Your task to perform on an android device: Open display settings Image 0: 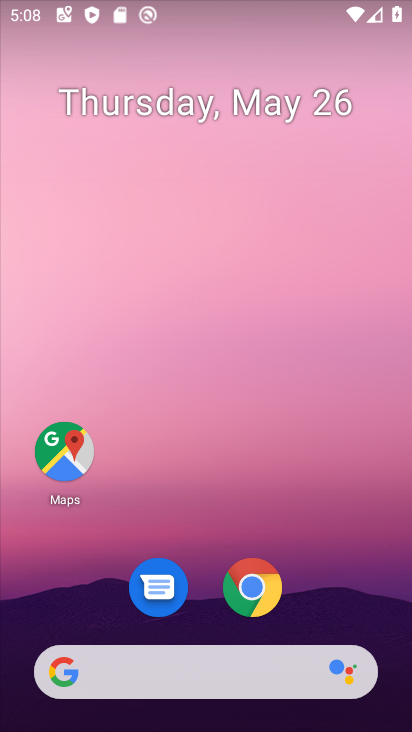
Step 0: drag from (340, 503) to (295, 108)
Your task to perform on an android device: Open display settings Image 1: 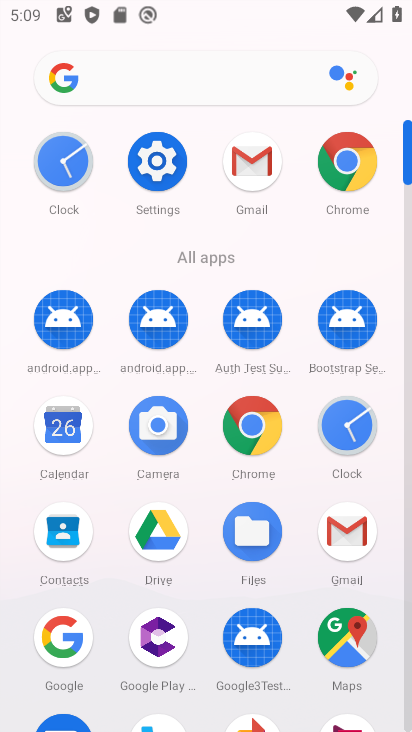
Step 1: click (155, 158)
Your task to perform on an android device: Open display settings Image 2: 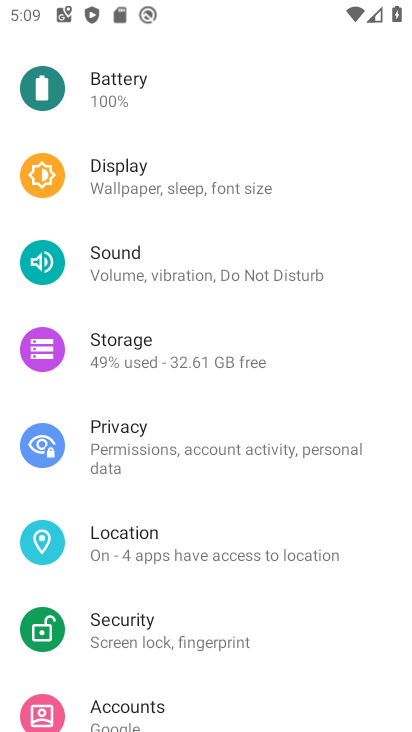
Step 2: click (150, 180)
Your task to perform on an android device: Open display settings Image 3: 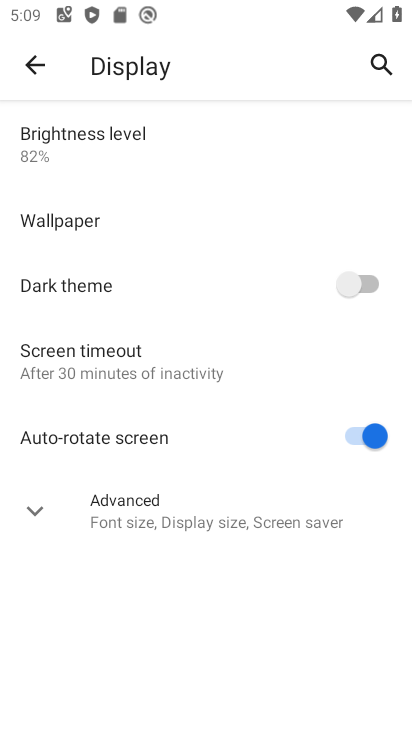
Step 3: task complete